Your task to perform on an android device: turn on airplane mode Image 0: 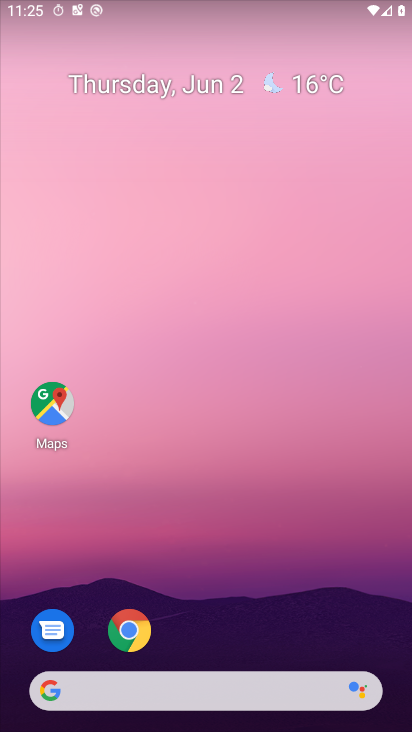
Step 0: drag from (222, 635) to (262, 174)
Your task to perform on an android device: turn on airplane mode Image 1: 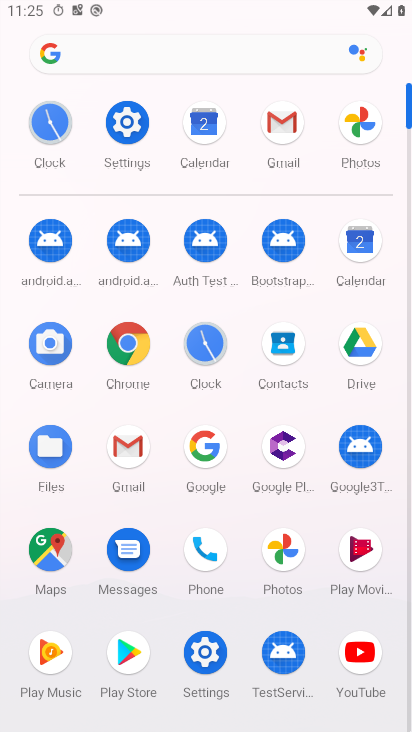
Step 1: click (132, 151)
Your task to perform on an android device: turn on airplane mode Image 2: 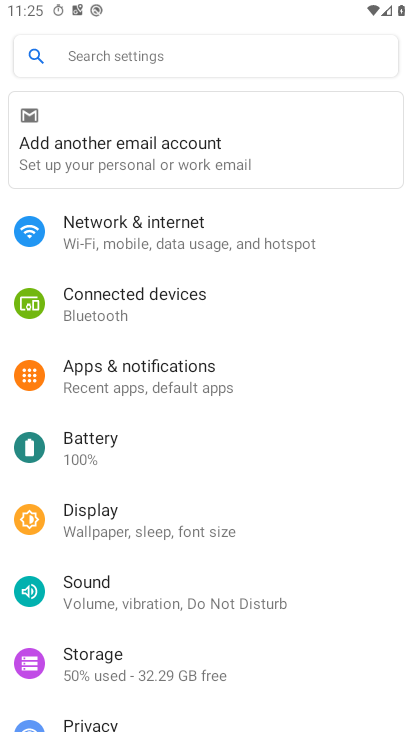
Step 2: click (165, 241)
Your task to perform on an android device: turn on airplane mode Image 3: 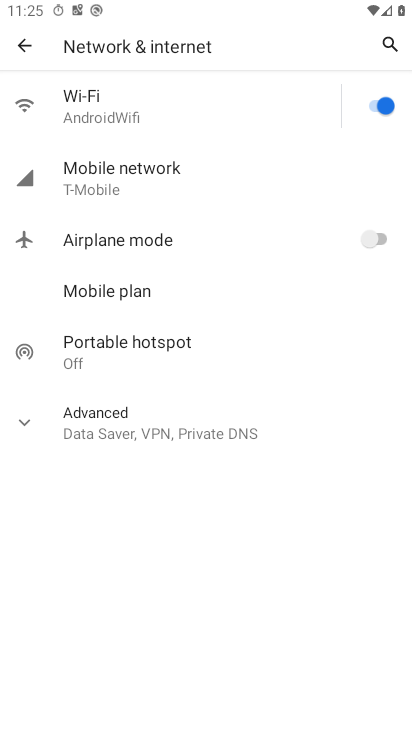
Step 3: click (383, 240)
Your task to perform on an android device: turn on airplane mode Image 4: 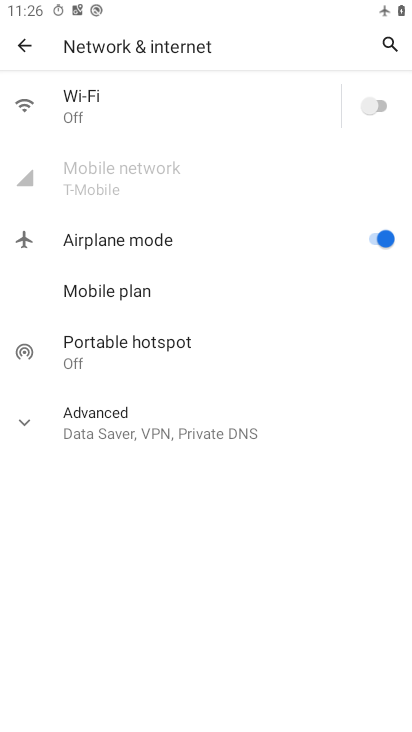
Step 4: task complete